Your task to perform on an android device: Open settings Image 0: 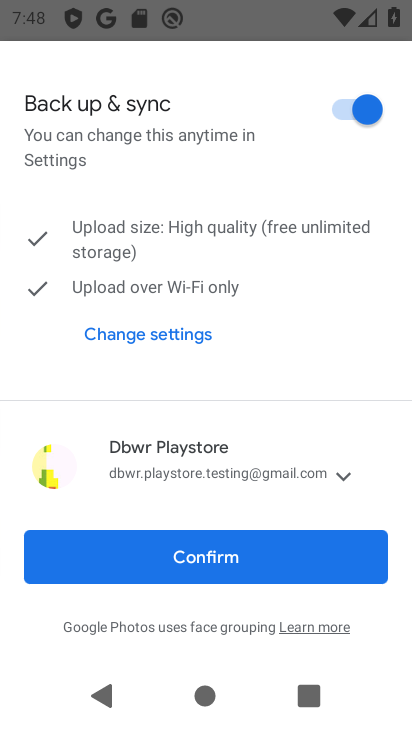
Step 0: press home button
Your task to perform on an android device: Open settings Image 1: 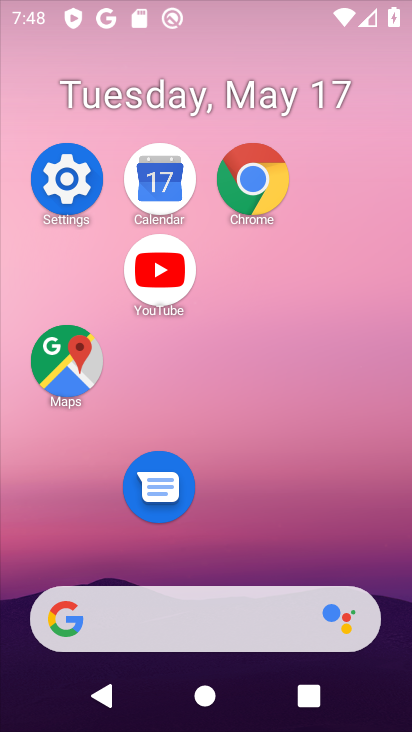
Step 1: click (54, 166)
Your task to perform on an android device: Open settings Image 2: 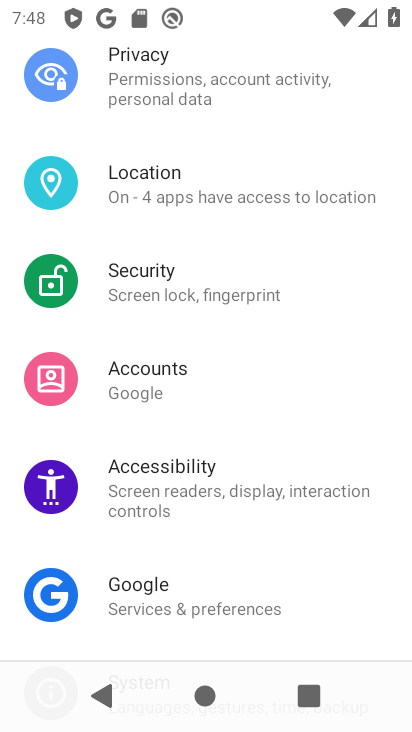
Step 2: task complete